Your task to perform on an android device: toggle pop-ups in chrome Image 0: 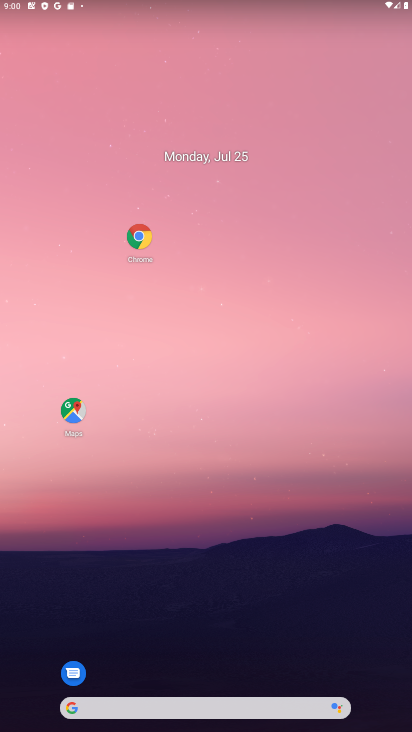
Step 0: click (146, 246)
Your task to perform on an android device: toggle pop-ups in chrome Image 1: 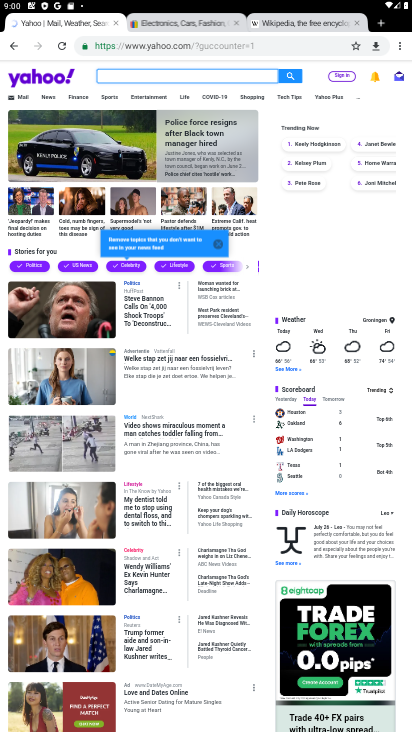
Step 1: click (399, 49)
Your task to perform on an android device: toggle pop-ups in chrome Image 2: 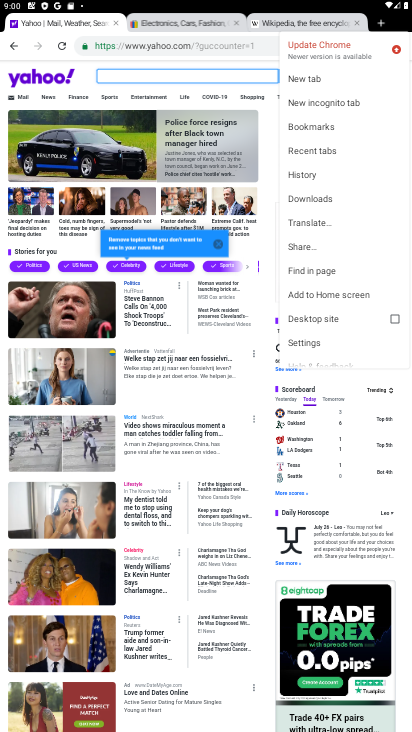
Step 2: click (325, 349)
Your task to perform on an android device: toggle pop-ups in chrome Image 3: 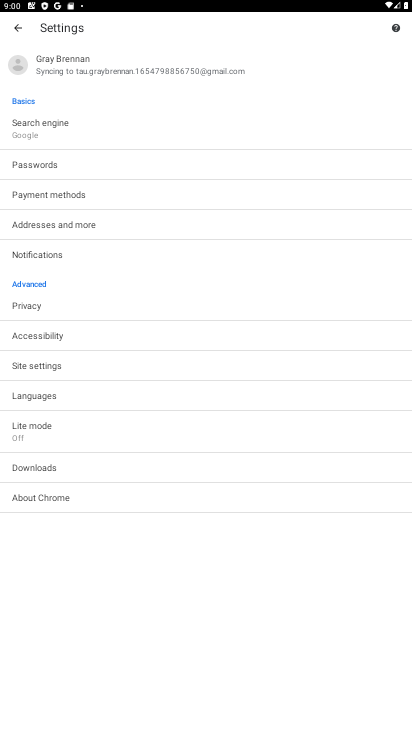
Step 3: click (65, 368)
Your task to perform on an android device: toggle pop-ups in chrome Image 4: 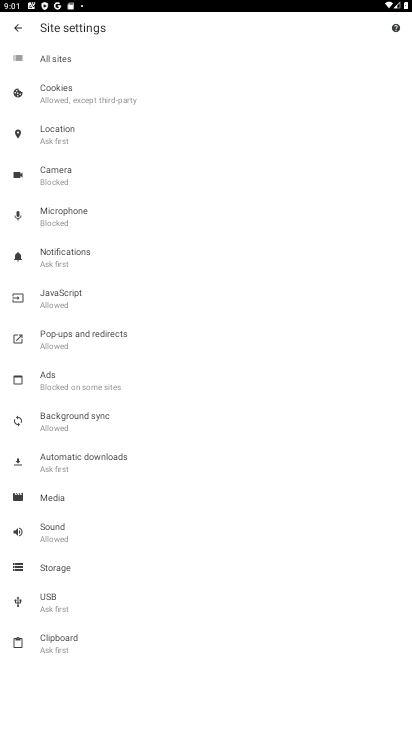
Step 4: click (83, 344)
Your task to perform on an android device: toggle pop-ups in chrome Image 5: 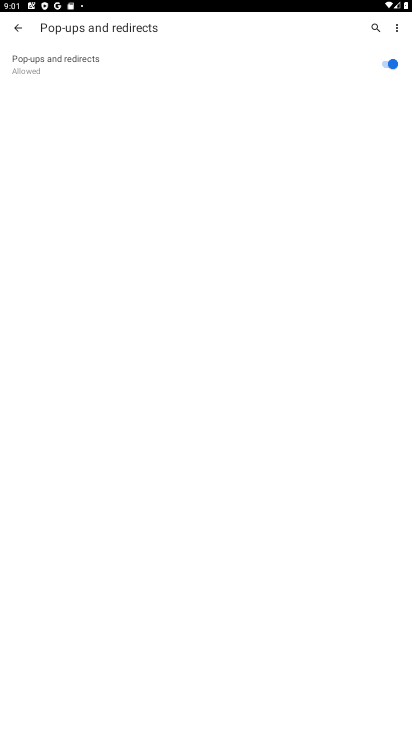
Step 5: click (407, 58)
Your task to perform on an android device: toggle pop-ups in chrome Image 6: 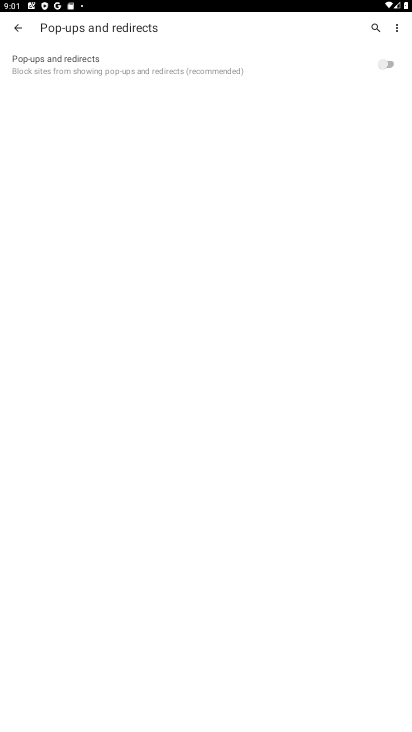
Step 6: task complete